Your task to perform on an android device: set the stopwatch Image 0: 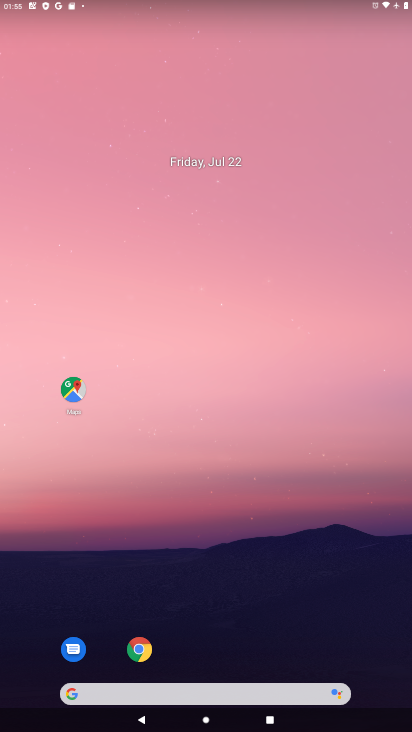
Step 0: press home button
Your task to perform on an android device: set the stopwatch Image 1: 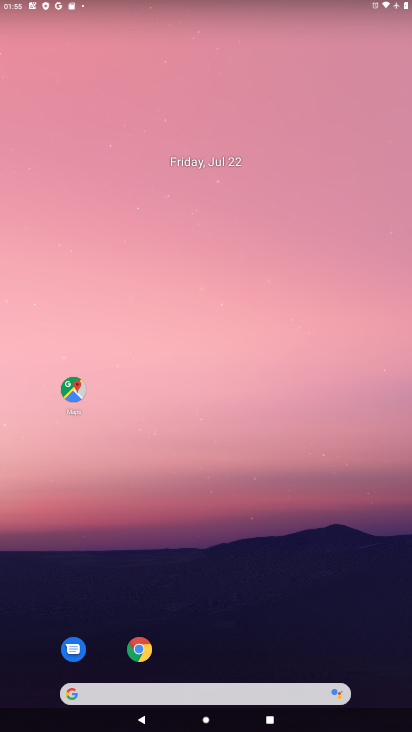
Step 1: drag from (284, 601) to (240, 124)
Your task to perform on an android device: set the stopwatch Image 2: 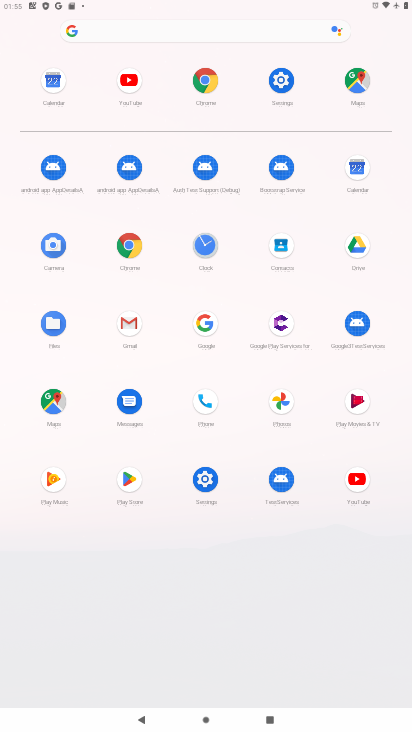
Step 2: click (210, 247)
Your task to perform on an android device: set the stopwatch Image 3: 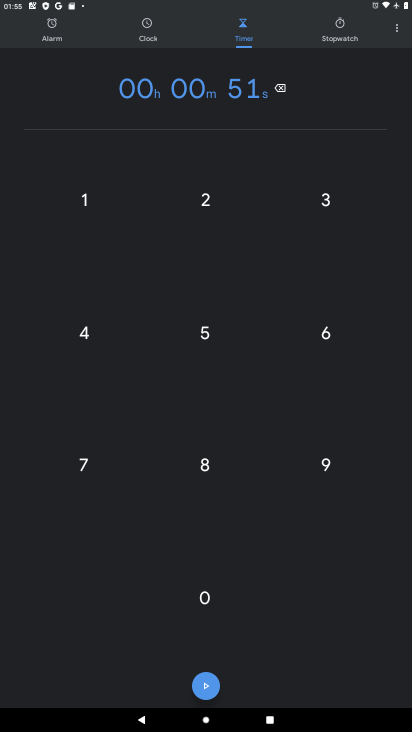
Step 3: click (332, 31)
Your task to perform on an android device: set the stopwatch Image 4: 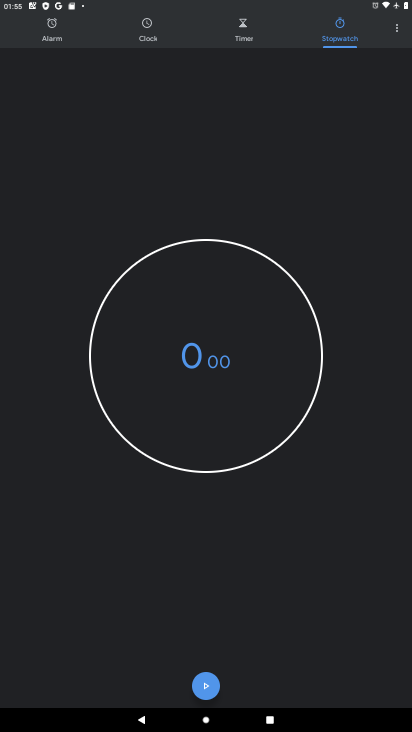
Step 4: click (207, 694)
Your task to perform on an android device: set the stopwatch Image 5: 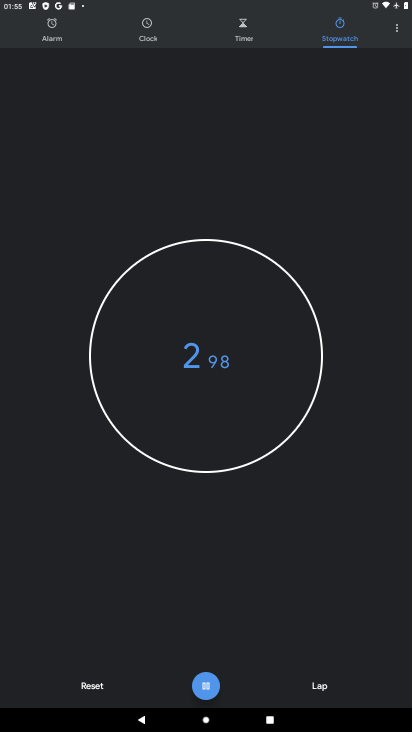
Step 5: click (204, 686)
Your task to perform on an android device: set the stopwatch Image 6: 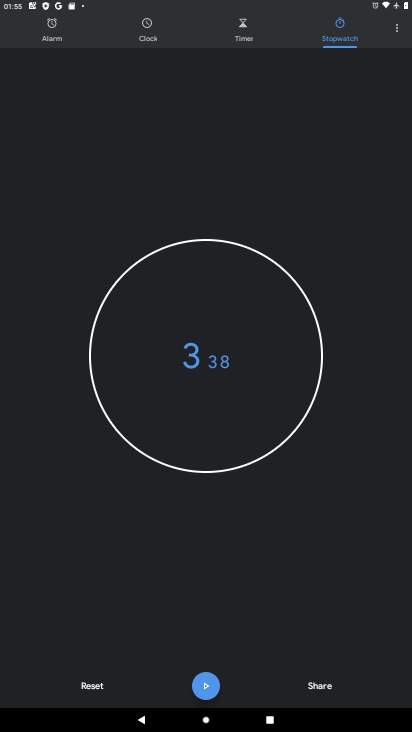
Step 6: task complete